Your task to perform on an android device: turn off picture-in-picture Image 0: 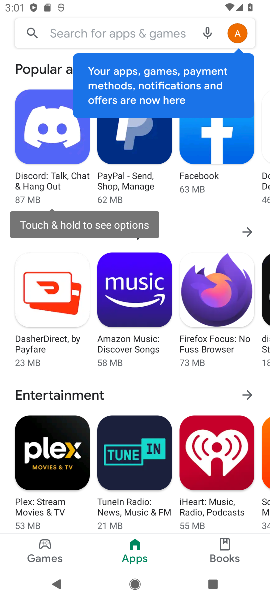
Step 0: press home button
Your task to perform on an android device: turn off picture-in-picture Image 1: 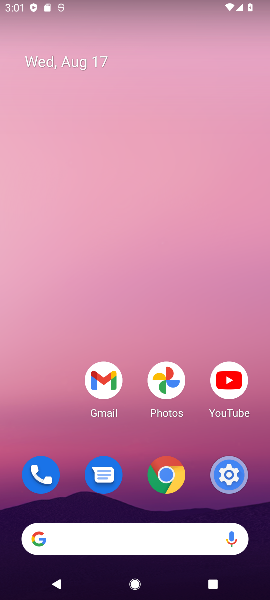
Step 1: click (219, 476)
Your task to perform on an android device: turn off picture-in-picture Image 2: 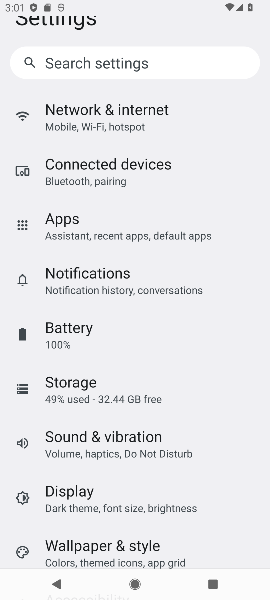
Step 2: click (99, 305)
Your task to perform on an android device: turn off picture-in-picture Image 3: 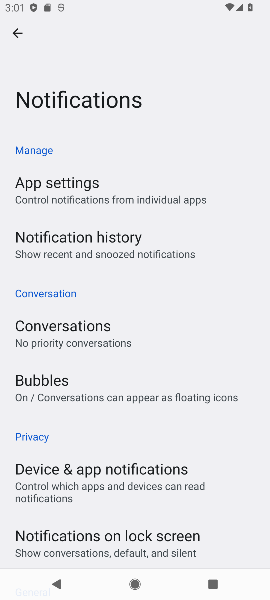
Step 3: drag from (159, 508) to (111, 16)
Your task to perform on an android device: turn off picture-in-picture Image 4: 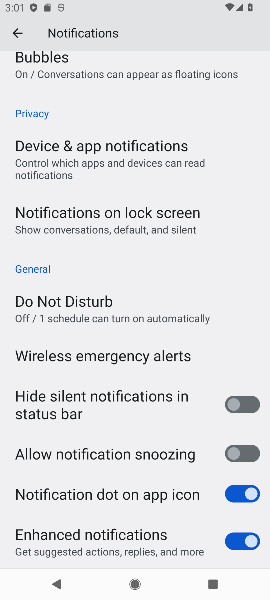
Step 4: click (22, 29)
Your task to perform on an android device: turn off picture-in-picture Image 5: 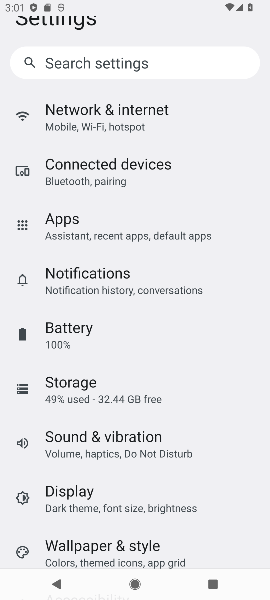
Step 5: click (91, 278)
Your task to perform on an android device: turn off picture-in-picture Image 6: 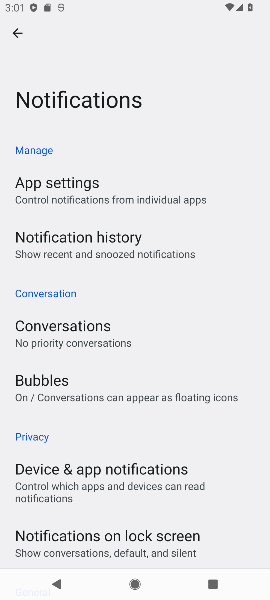
Step 6: drag from (56, 414) to (71, 229)
Your task to perform on an android device: turn off picture-in-picture Image 7: 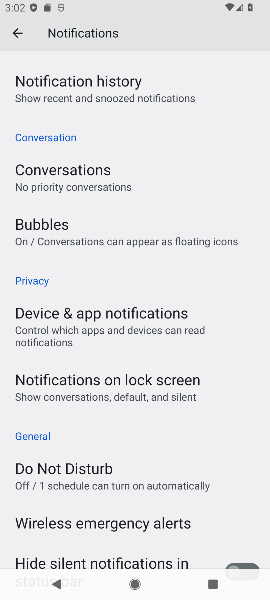
Step 7: click (103, 333)
Your task to perform on an android device: turn off picture-in-picture Image 8: 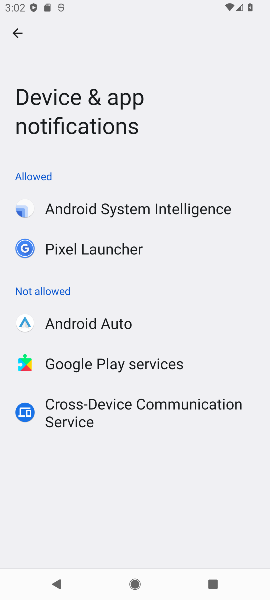
Step 8: click (12, 36)
Your task to perform on an android device: turn off picture-in-picture Image 9: 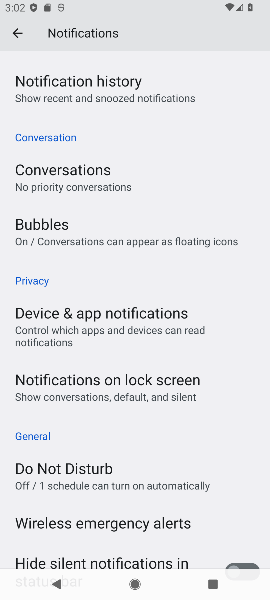
Step 9: task complete